Your task to perform on an android device: Open Reddit.com Image 0: 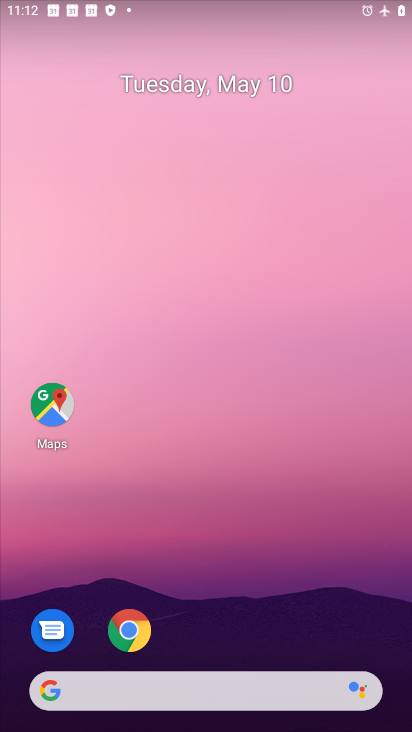
Step 0: click (215, 702)
Your task to perform on an android device: Open Reddit.com Image 1: 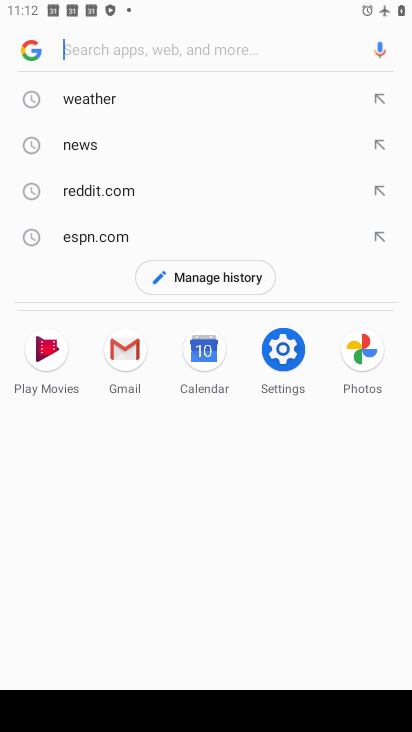
Step 1: type "redd"
Your task to perform on an android device: Open Reddit.com Image 2: 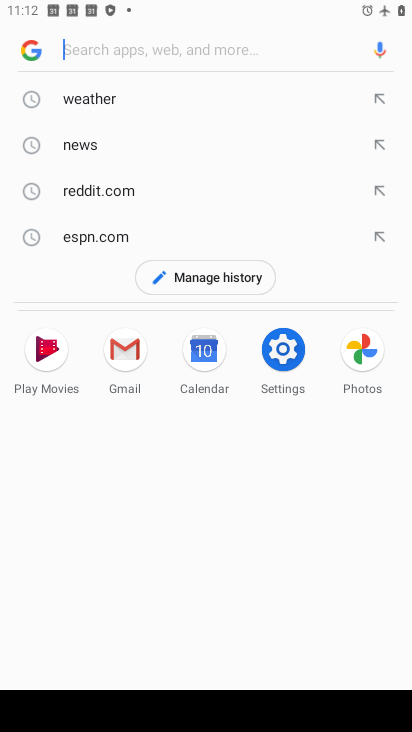
Step 2: click (92, 184)
Your task to perform on an android device: Open Reddit.com Image 3: 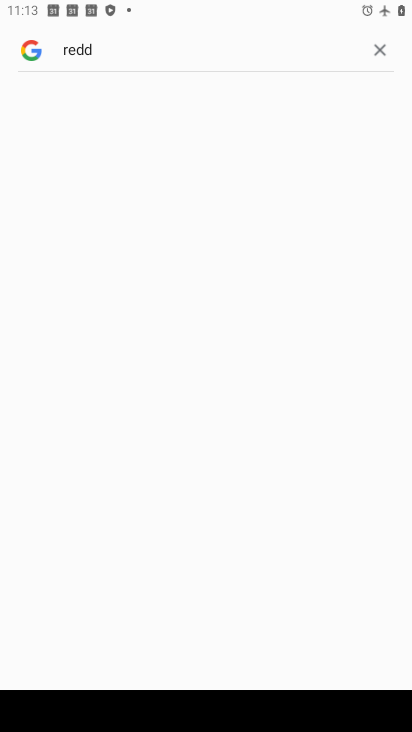
Step 3: press back button
Your task to perform on an android device: Open Reddit.com Image 4: 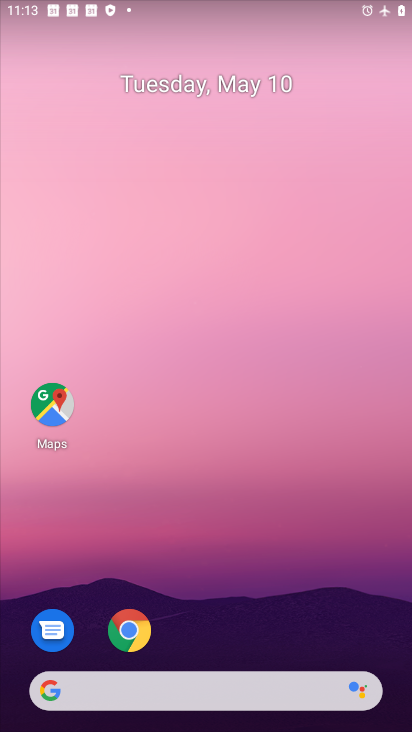
Step 4: click (136, 691)
Your task to perform on an android device: Open Reddit.com Image 5: 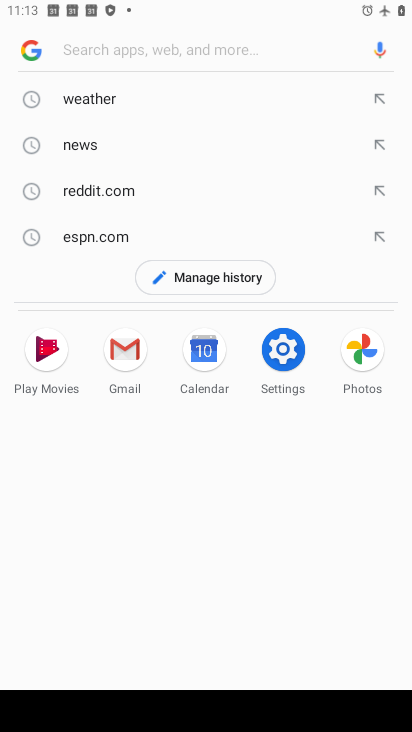
Step 5: click (112, 189)
Your task to perform on an android device: Open Reddit.com Image 6: 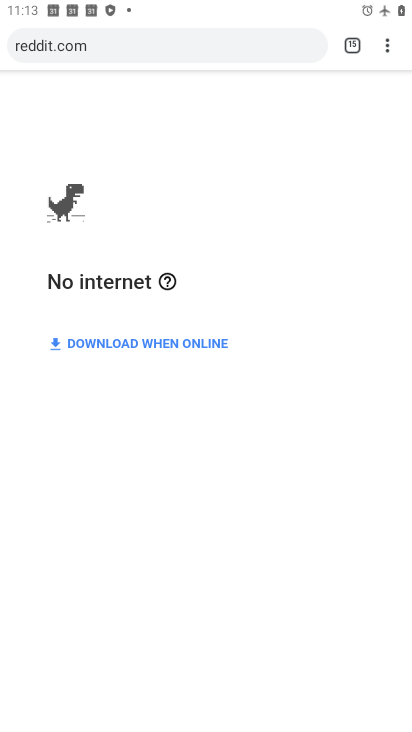
Step 6: task complete